Your task to perform on an android device: open chrome privacy settings Image 0: 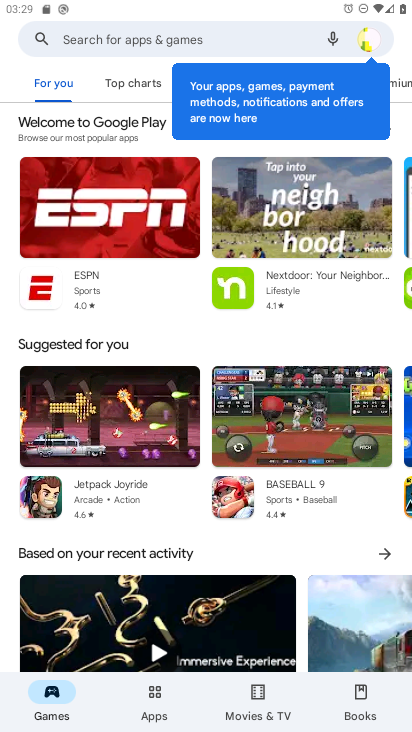
Step 0: press home button
Your task to perform on an android device: open chrome privacy settings Image 1: 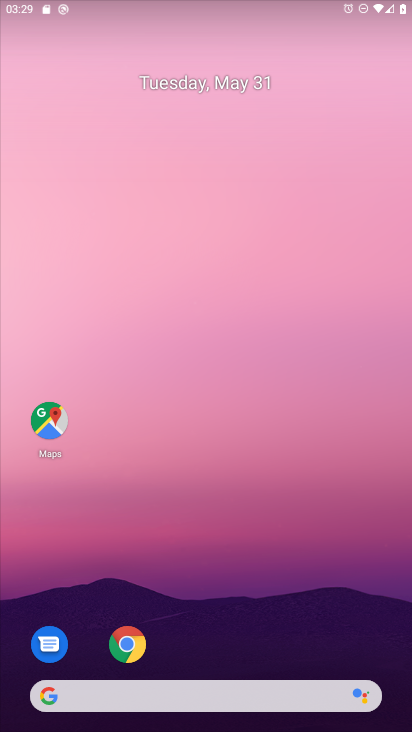
Step 1: drag from (338, 579) to (235, 142)
Your task to perform on an android device: open chrome privacy settings Image 2: 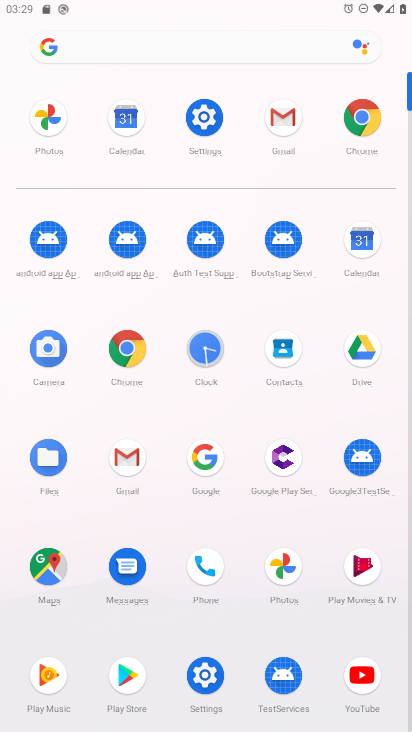
Step 2: click (201, 123)
Your task to perform on an android device: open chrome privacy settings Image 3: 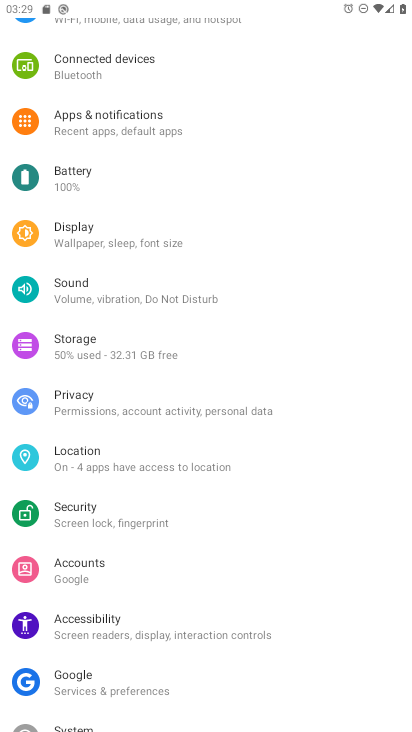
Step 3: press home button
Your task to perform on an android device: open chrome privacy settings Image 4: 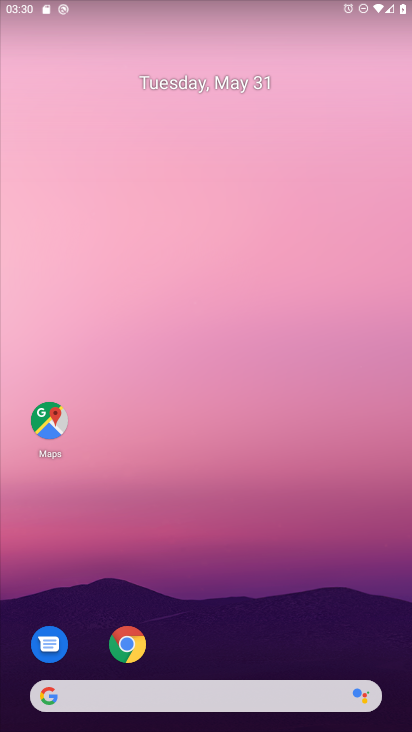
Step 4: click (122, 640)
Your task to perform on an android device: open chrome privacy settings Image 5: 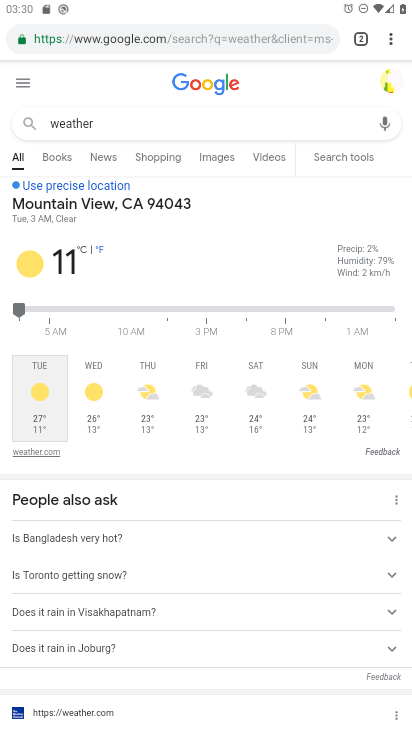
Step 5: drag from (396, 33) to (291, 446)
Your task to perform on an android device: open chrome privacy settings Image 6: 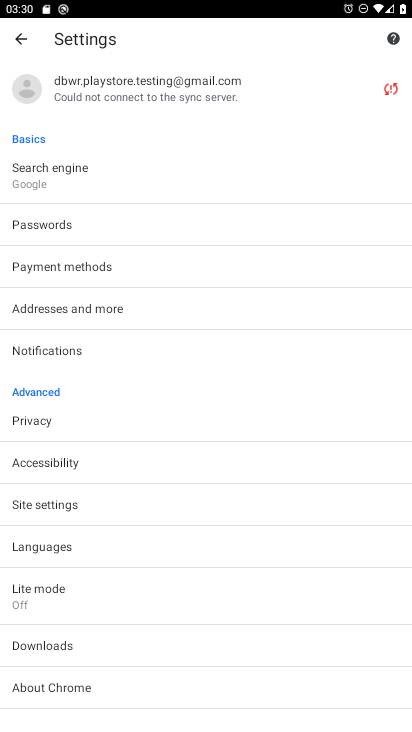
Step 6: drag from (108, 654) to (130, 275)
Your task to perform on an android device: open chrome privacy settings Image 7: 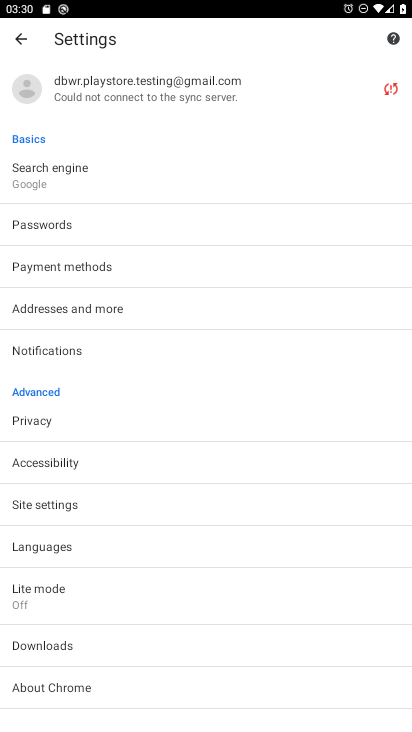
Step 7: click (38, 412)
Your task to perform on an android device: open chrome privacy settings Image 8: 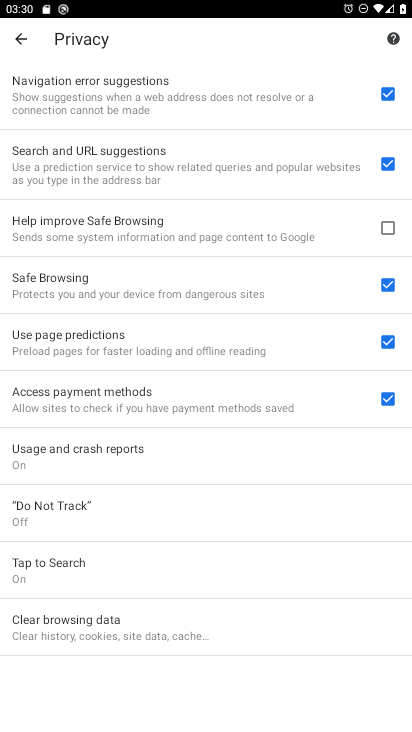
Step 8: task complete